Your task to perform on an android device: find snoozed emails in the gmail app Image 0: 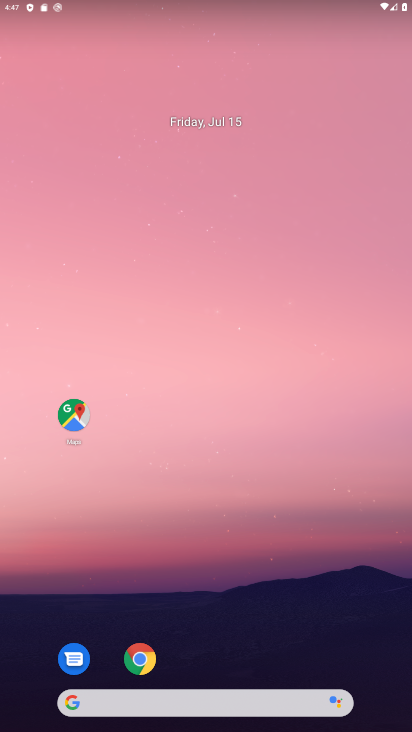
Step 0: drag from (246, 669) to (273, 189)
Your task to perform on an android device: find snoozed emails in the gmail app Image 1: 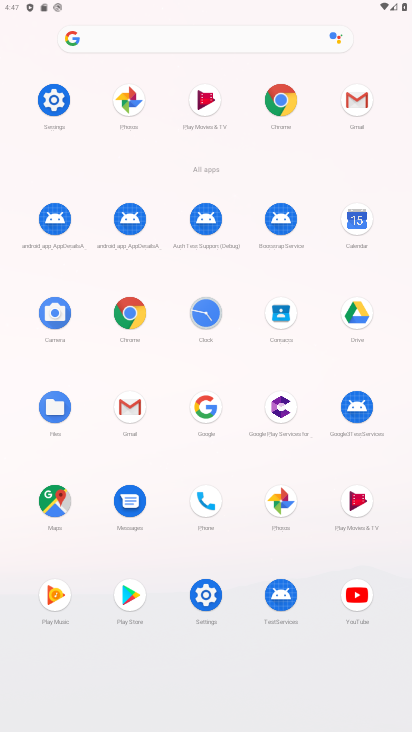
Step 1: click (370, 96)
Your task to perform on an android device: find snoozed emails in the gmail app Image 2: 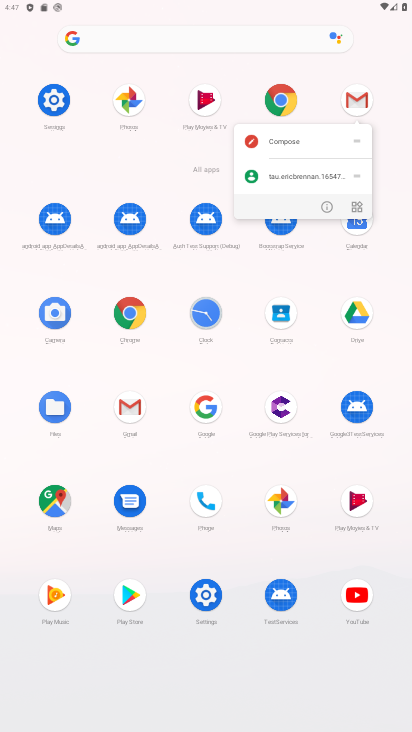
Step 2: click (360, 101)
Your task to perform on an android device: find snoozed emails in the gmail app Image 3: 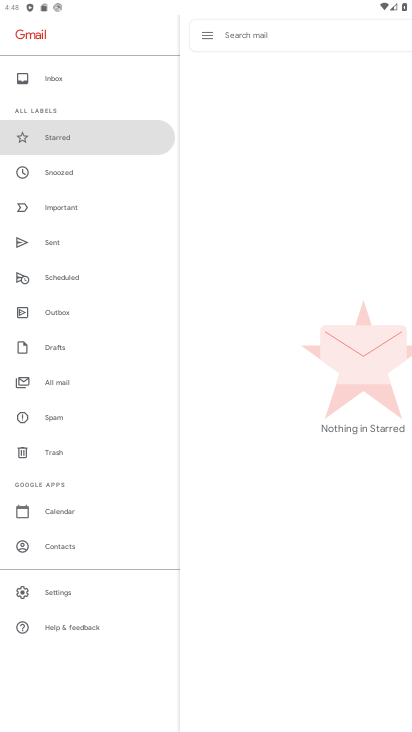
Step 3: click (52, 170)
Your task to perform on an android device: find snoozed emails in the gmail app Image 4: 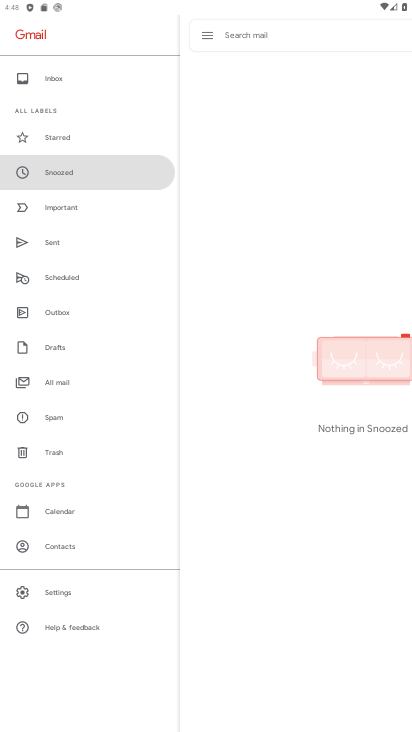
Step 4: task complete